Your task to perform on an android device: Open ESPN.com Image 0: 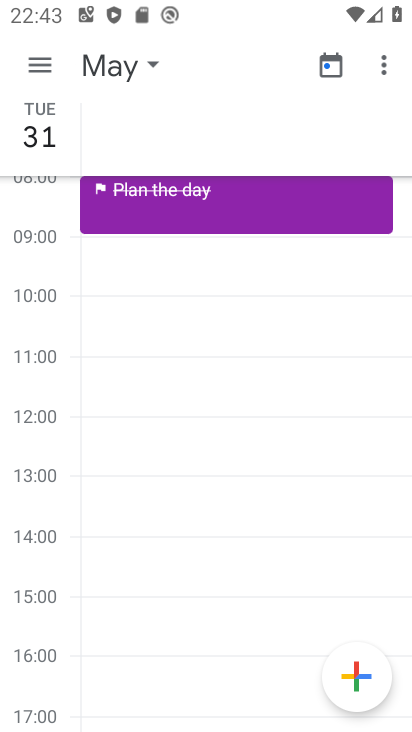
Step 0: press home button
Your task to perform on an android device: Open ESPN.com Image 1: 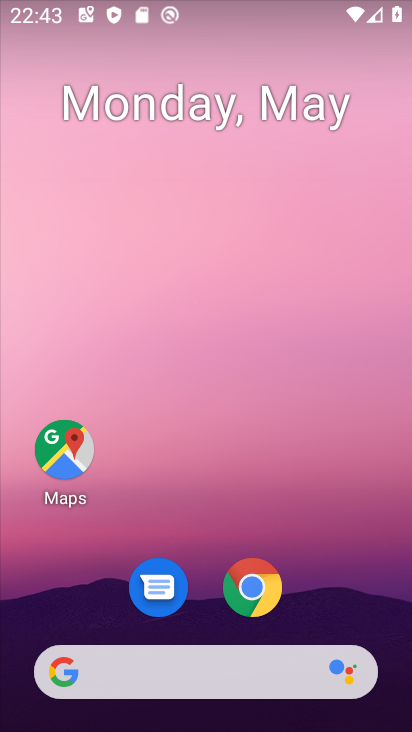
Step 1: click (237, 582)
Your task to perform on an android device: Open ESPN.com Image 2: 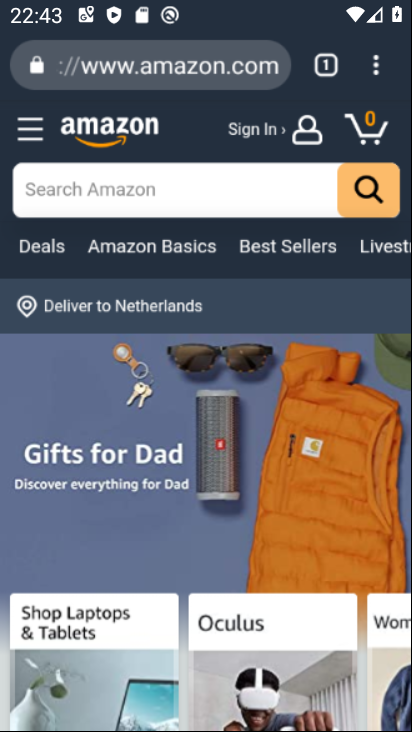
Step 2: click (336, 69)
Your task to perform on an android device: Open ESPN.com Image 3: 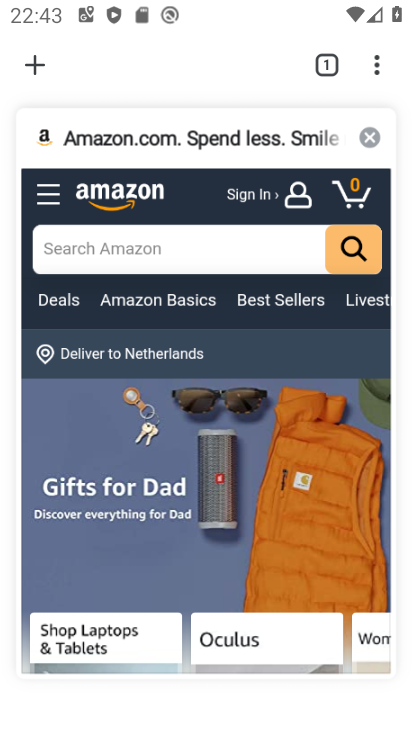
Step 3: click (44, 62)
Your task to perform on an android device: Open ESPN.com Image 4: 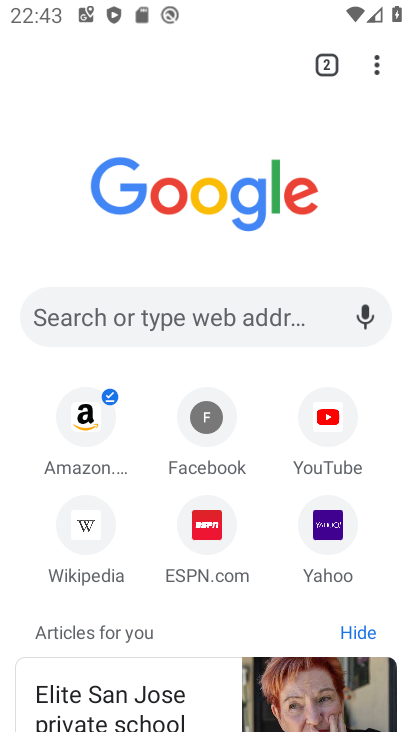
Step 4: click (213, 528)
Your task to perform on an android device: Open ESPN.com Image 5: 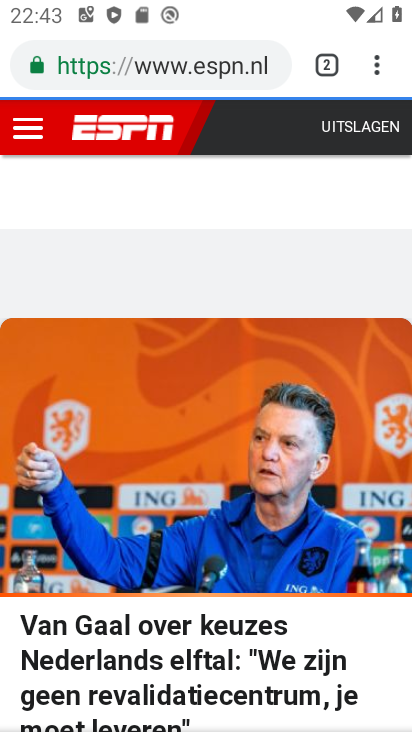
Step 5: task complete